Your task to perform on an android device: search for starred emails in the gmail app Image 0: 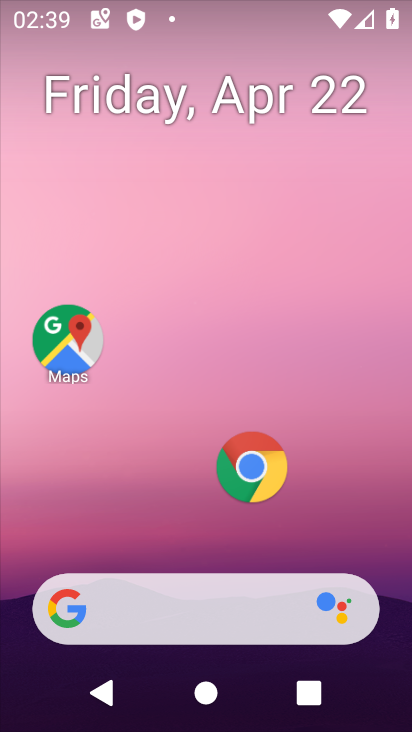
Step 0: drag from (238, 516) to (242, 244)
Your task to perform on an android device: search for starred emails in the gmail app Image 1: 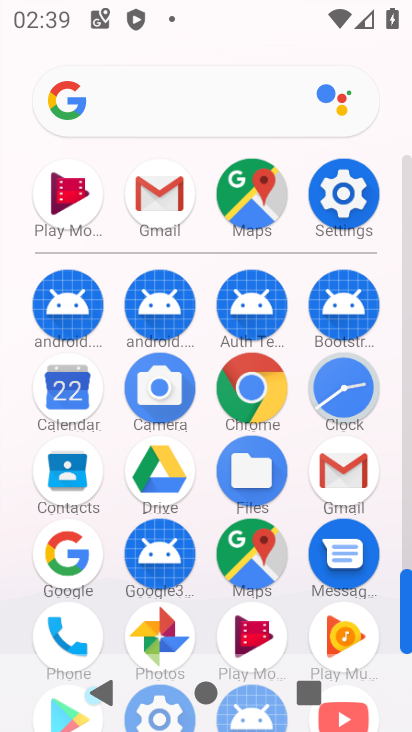
Step 1: click (150, 211)
Your task to perform on an android device: search for starred emails in the gmail app Image 2: 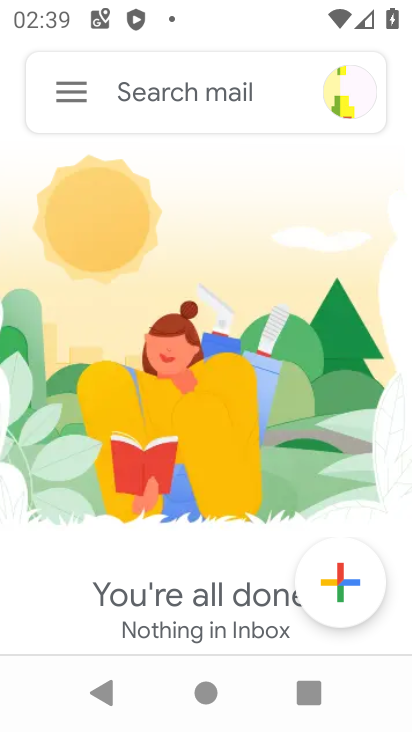
Step 2: click (77, 87)
Your task to perform on an android device: search for starred emails in the gmail app Image 3: 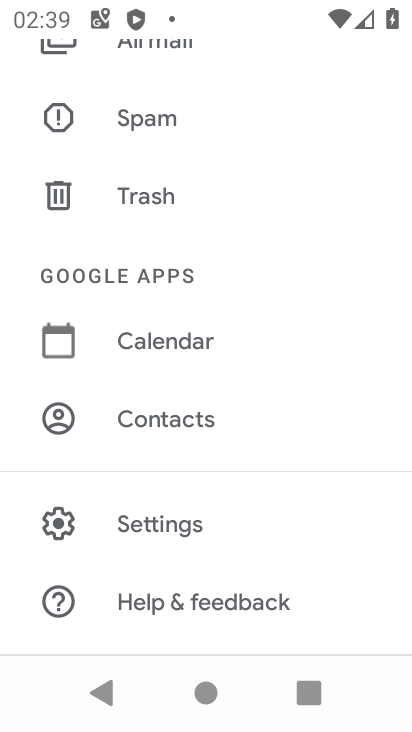
Step 3: drag from (204, 208) to (199, 675)
Your task to perform on an android device: search for starred emails in the gmail app Image 4: 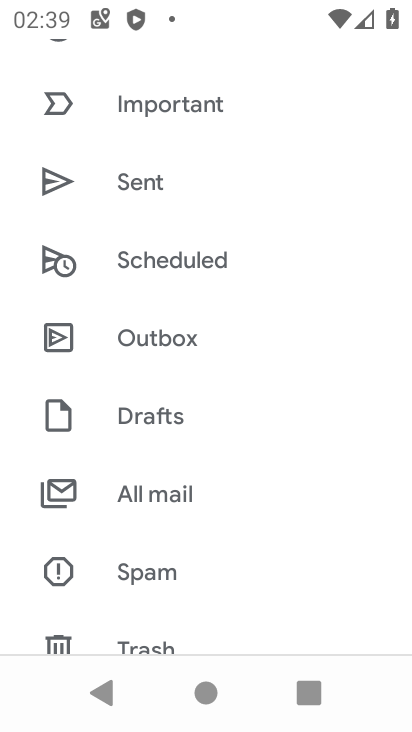
Step 4: drag from (211, 123) to (236, 682)
Your task to perform on an android device: search for starred emails in the gmail app Image 5: 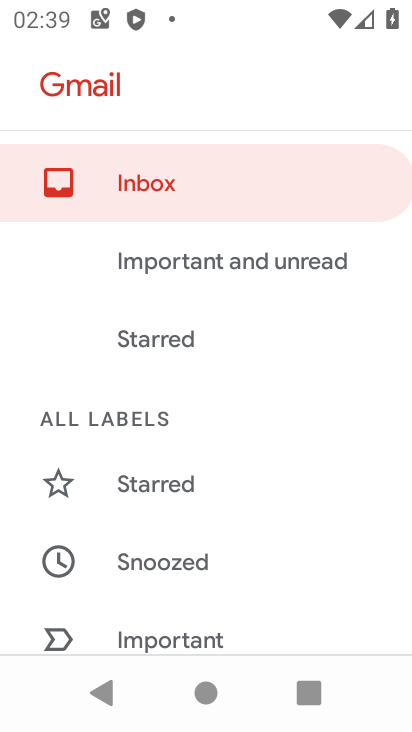
Step 5: click (161, 350)
Your task to perform on an android device: search for starred emails in the gmail app Image 6: 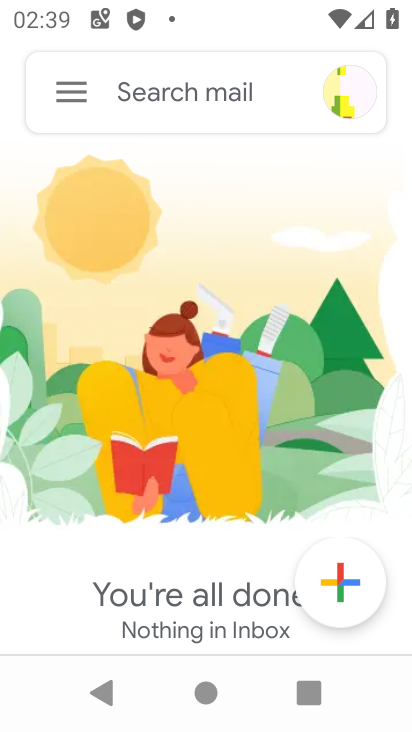
Step 6: task complete